Your task to perform on an android device: turn vacation reply on in the gmail app Image 0: 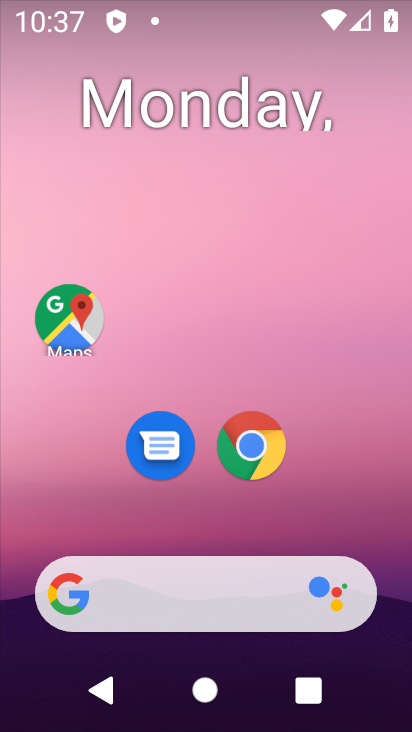
Step 0: drag from (272, 462) to (217, 121)
Your task to perform on an android device: turn vacation reply on in the gmail app Image 1: 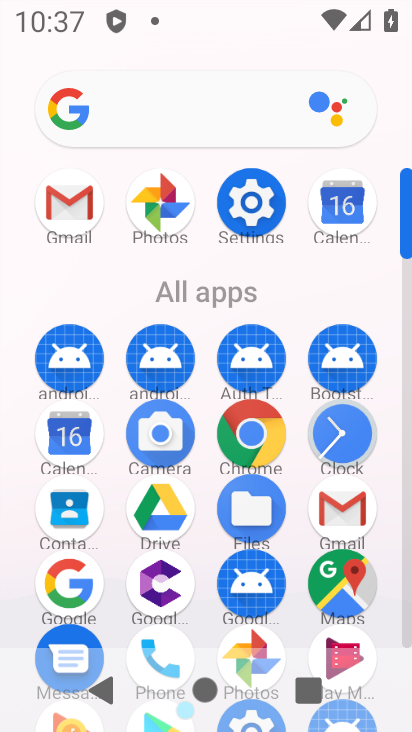
Step 1: click (354, 528)
Your task to perform on an android device: turn vacation reply on in the gmail app Image 2: 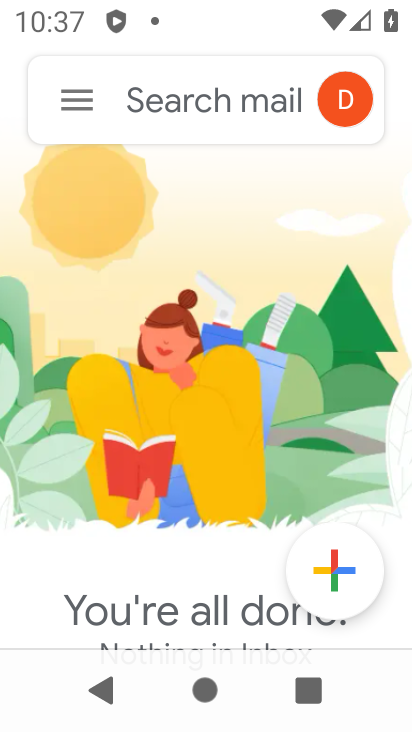
Step 2: click (66, 102)
Your task to perform on an android device: turn vacation reply on in the gmail app Image 3: 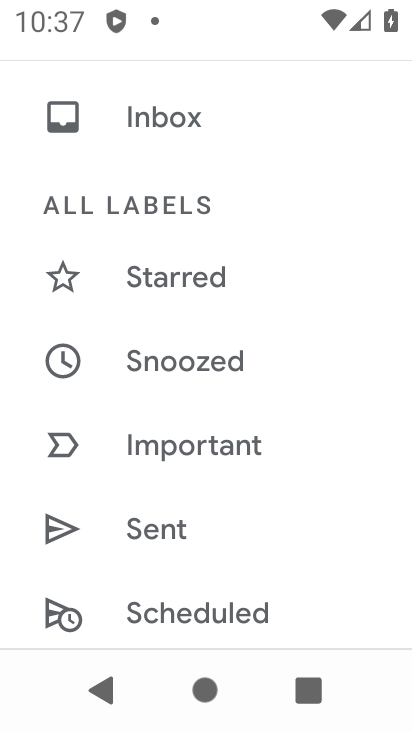
Step 3: drag from (193, 589) to (216, 90)
Your task to perform on an android device: turn vacation reply on in the gmail app Image 4: 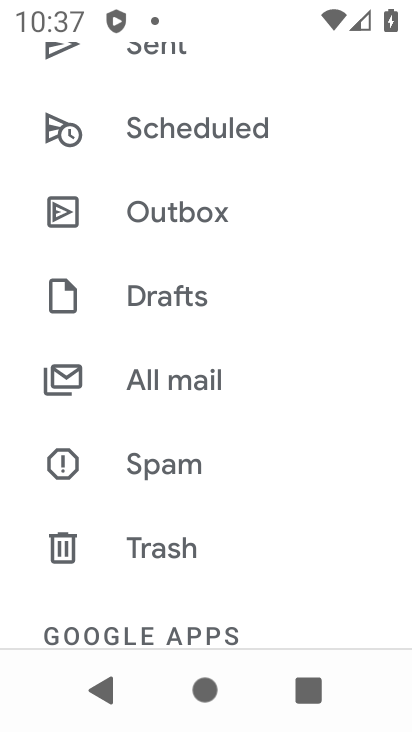
Step 4: drag from (182, 590) to (155, 223)
Your task to perform on an android device: turn vacation reply on in the gmail app Image 5: 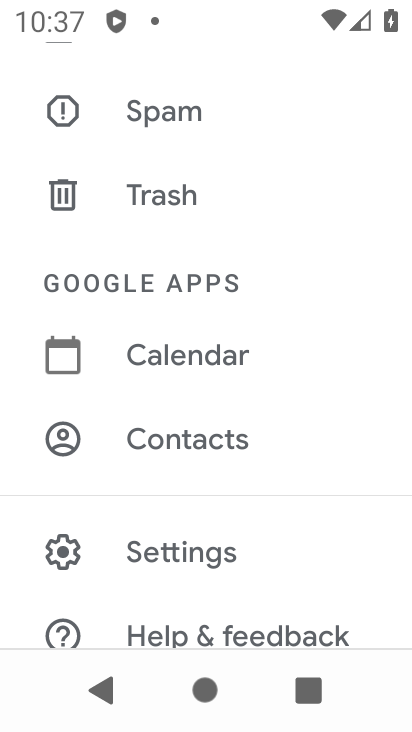
Step 5: click (161, 556)
Your task to perform on an android device: turn vacation reply on in the gmail app Image 6: 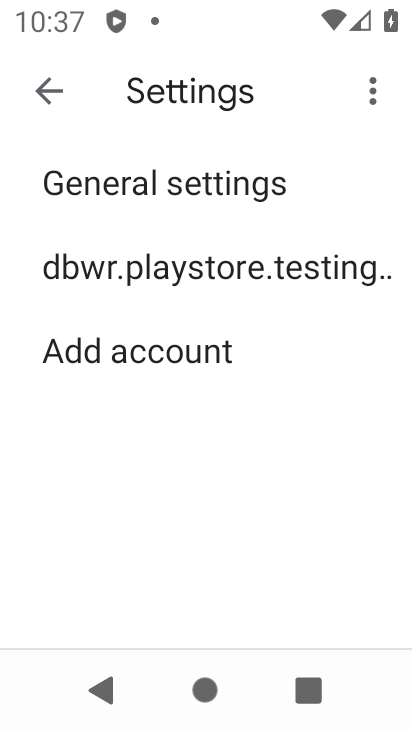
Step 6: click (150, 260)
Your task to perform on an android device: turn vacation reply on in the gmail app Image 7: 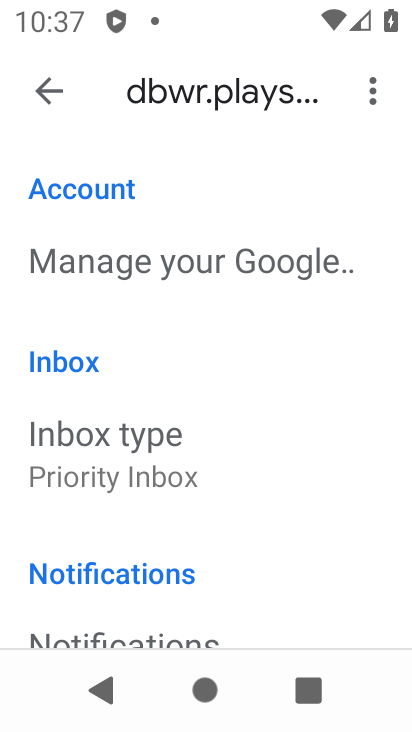
Step 7: drag from (166, 572) to (139, 110)
Your task to perform on an android device: turn vacation reply on in the gmail app Image 8: 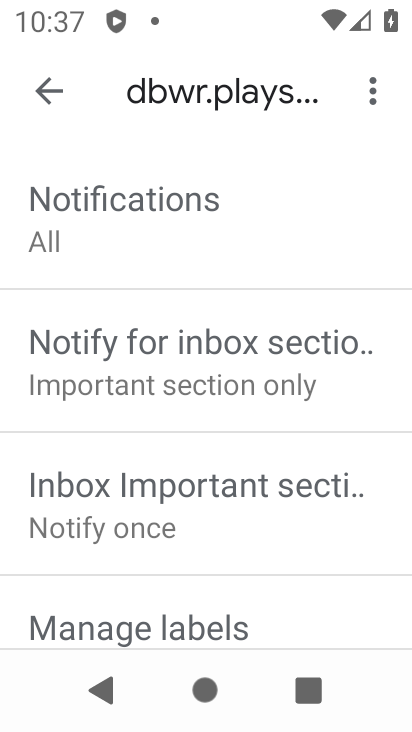
Step 8: drag from (144, 621) to (177, 132)
Your task to perform on an android device: turn vacation reply on in the gmail app Image 9: 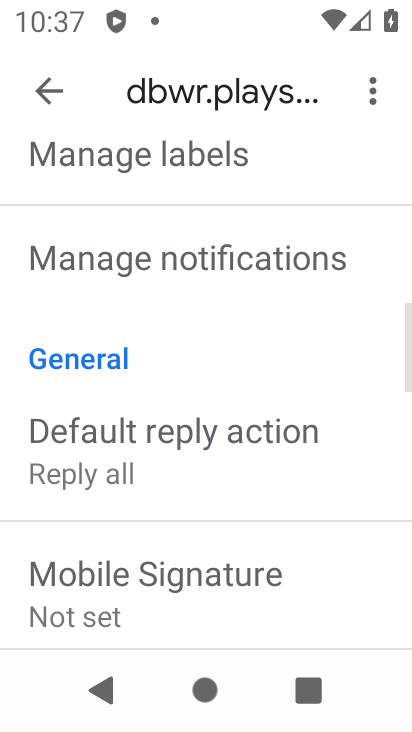
Step 9: drag from (188, 553) to (151, 170)
Your task to perform on an android device: turn vacation reply on in the gmail app Image 10: 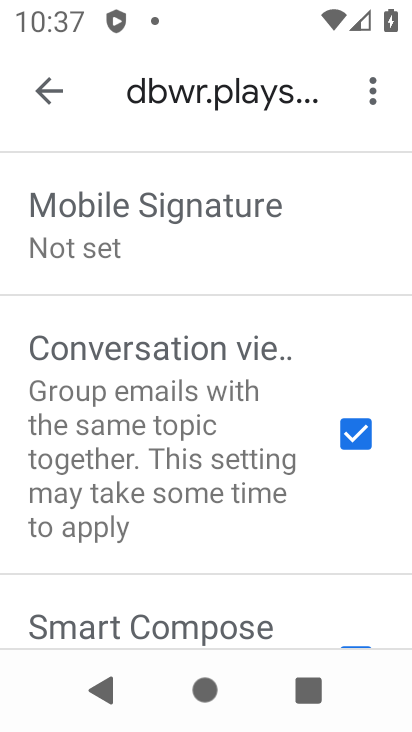
Step 10: drag from (191, 565) to (201, 236)
Your task to perform on an android device: turn vacation reply on in the gmail app Image 11: 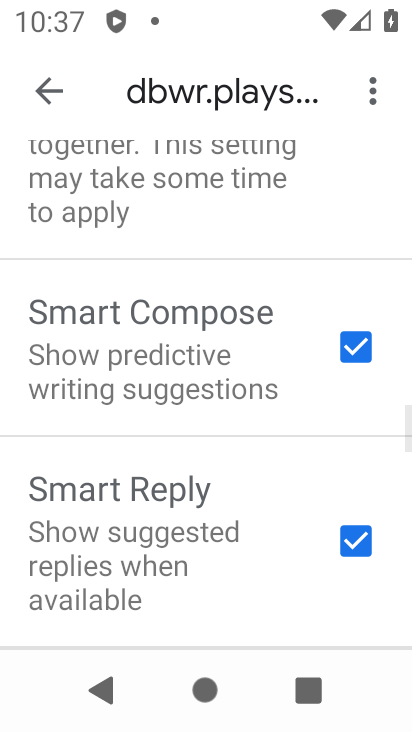
Step 11: drag from (150, 587) to (138, 244)
Your task to perform on an android device: turn vacation reply on in the gmail app Image 12: 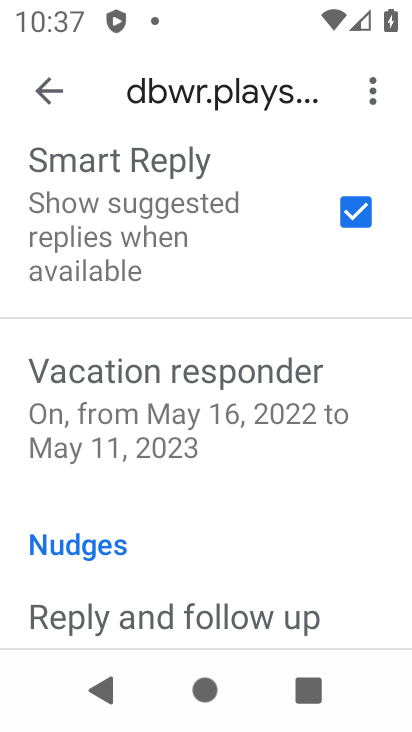
Step 12: click (163, 464)
Your task to perform on an android device: turn vacation reply on in the gmail app Image 13: 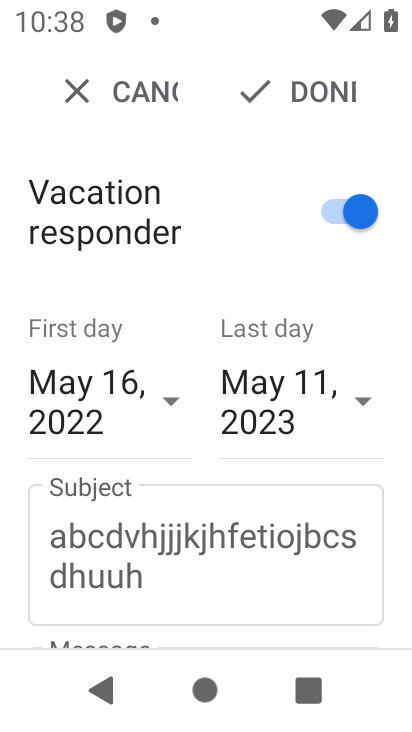
Step 13: task complete